Your task to perform on an android device: What is the news today? Image 0: 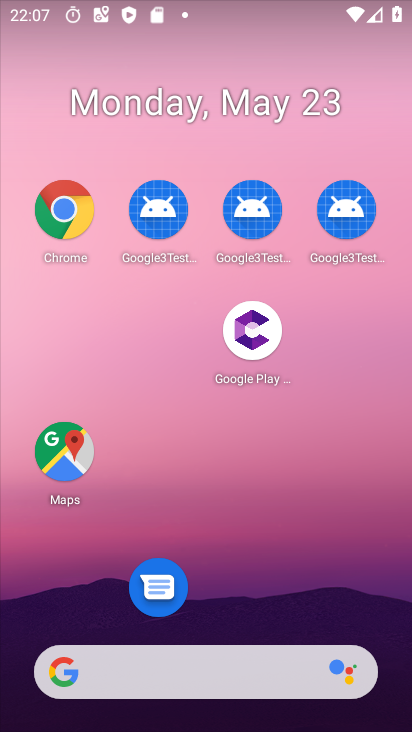
Step 0: click (234, 663)
Your task to perform on an android device: What is the news today? Image 1: 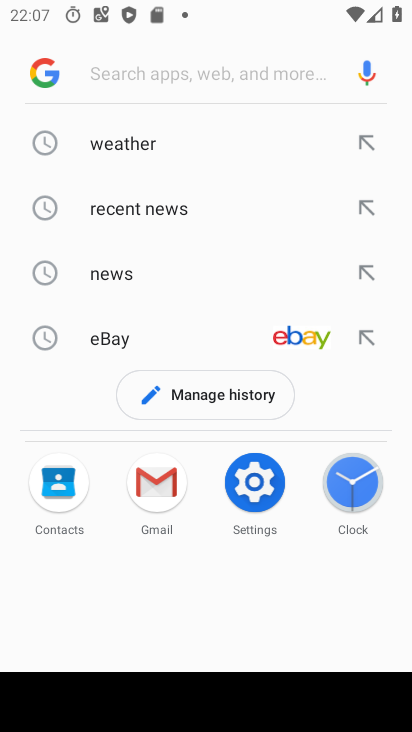
Step 1: click (173, 73)
Your task to perform on an android device: What is the news today? Image 2: 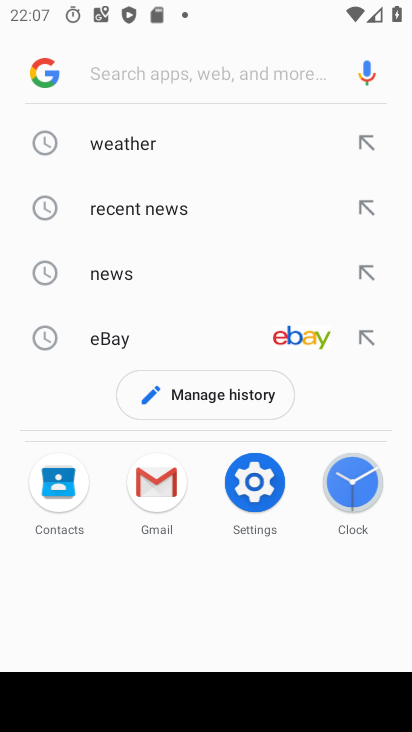
Step 2: type "news today?"
Your task to perform on an android device: What is the news today? Image 3: 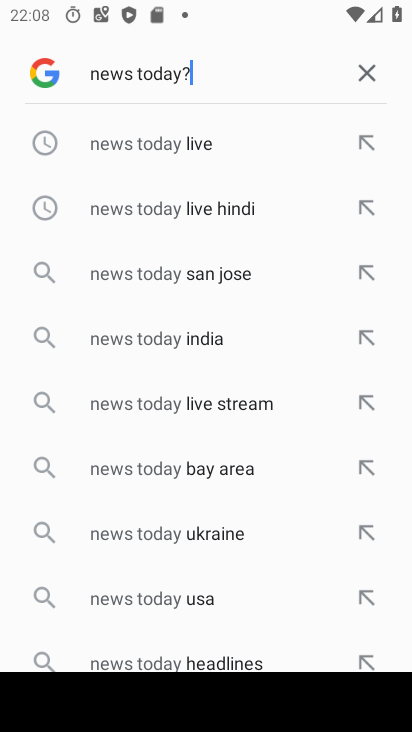
Step 3: click (152, 133)
Your task to perform on an android device: What is the news today? Image 4: 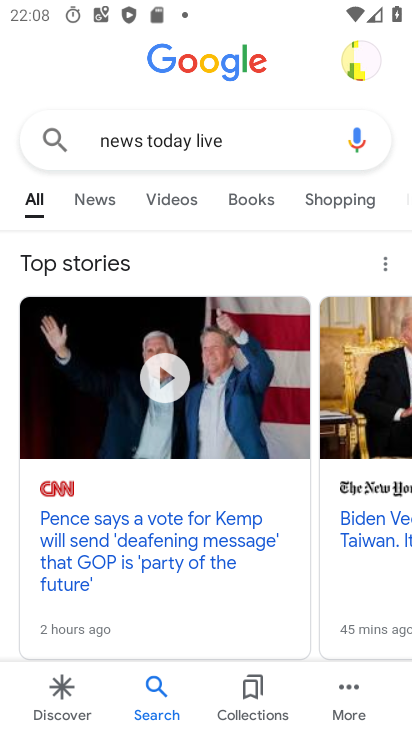
Step 4: click (99, 195)
Your task to perform on an android device: What is the news today? Image 5: 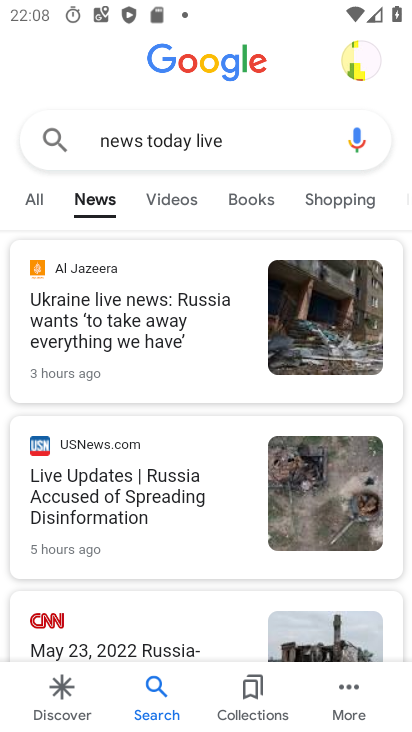
Step 5: task complete